Your task to perform on an android device: Open Google Chrome Image 0: 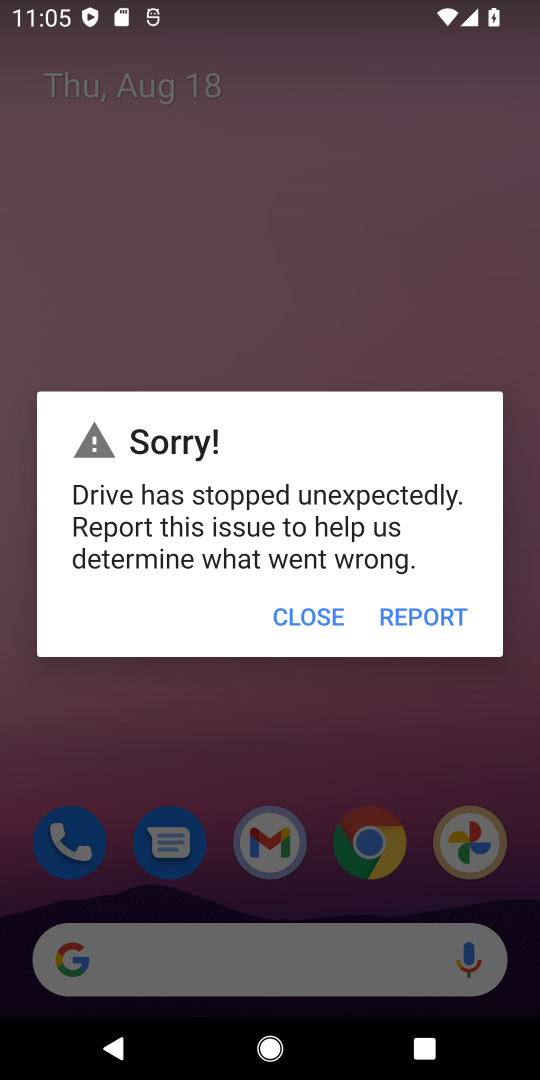
Step 0: click (354, 851)
Your task to perform on an android device: Open Google Chrome Image 1: 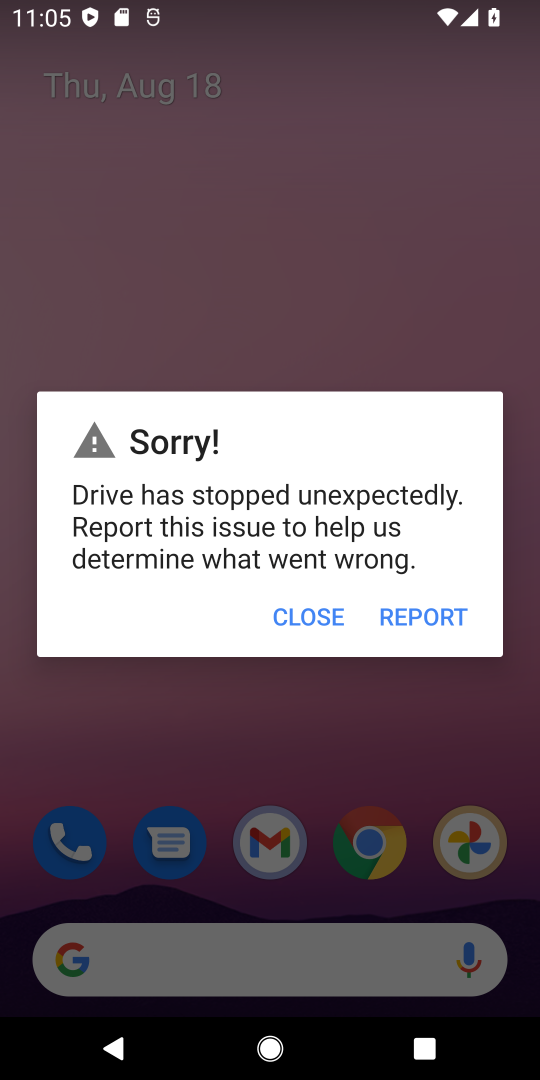
Step 1: click (289, 633)
Your task to perform on an android device: Open Google Chrome Image 2: 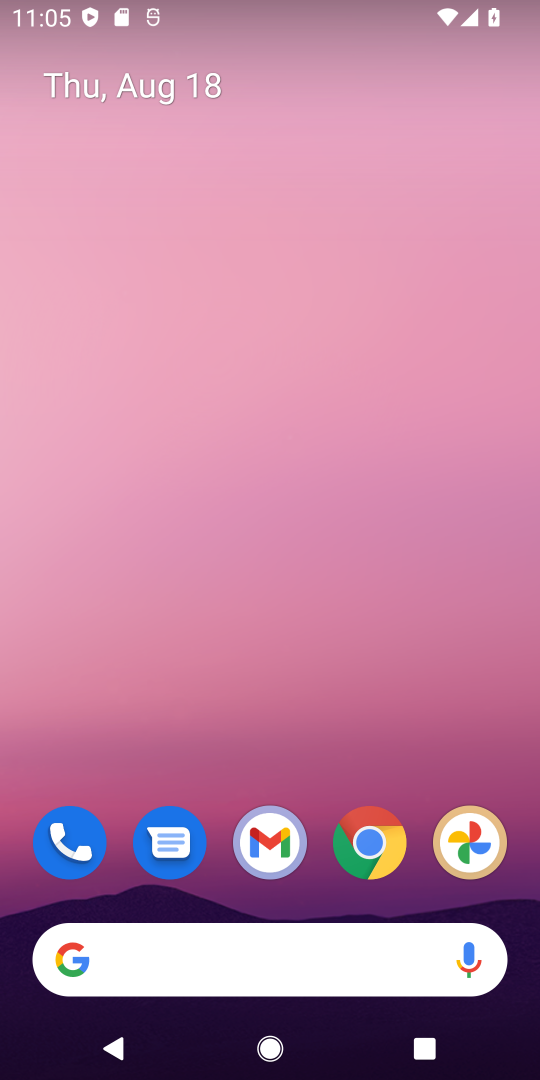
Step 2: click (377, 839)
Your task to perform on an android device: Open Google Chrome Image 3: 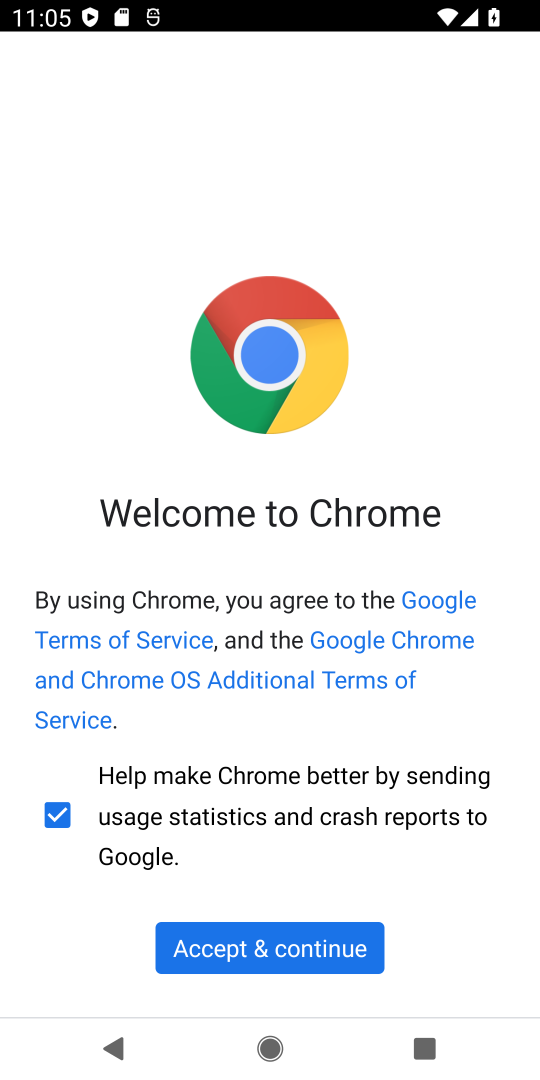
Step 3: click (290, 947)
Your task to perform on an android device: Open Google Chrome Image 4: 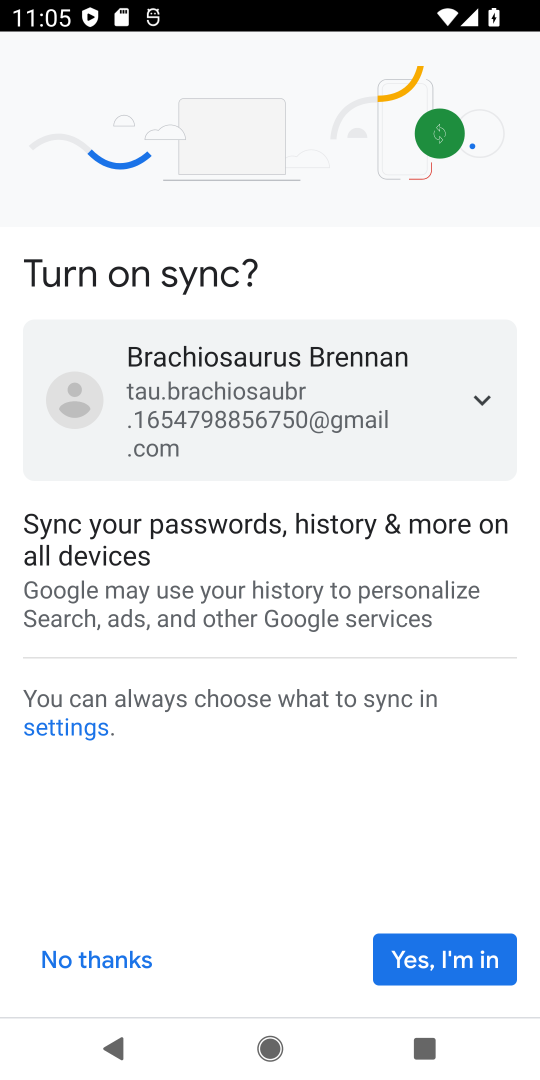
Step 4: click (463, 952)
Your task to perform on an android device: Open Google Chrome Image 5: 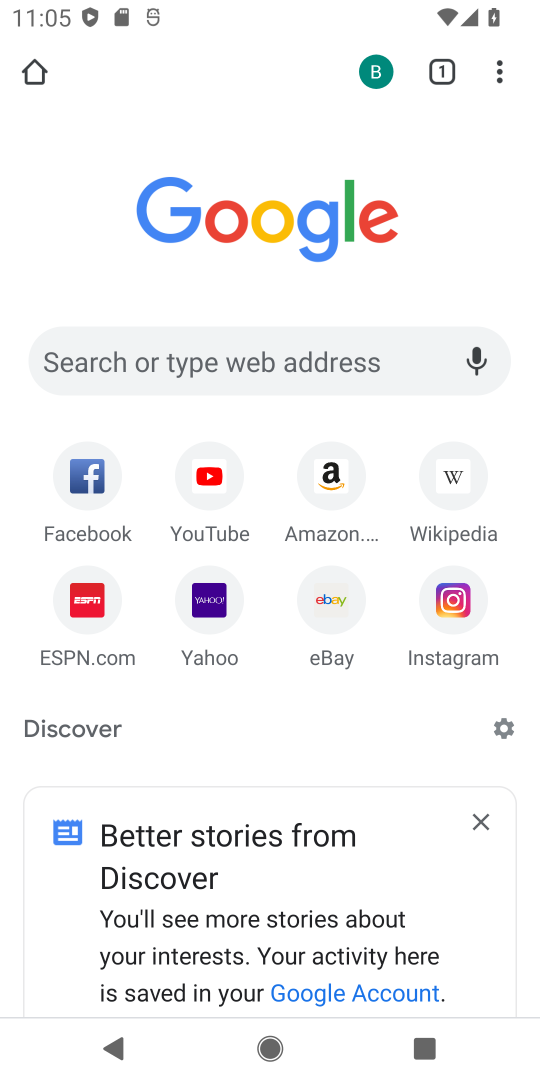
Step 5: task complete